Your task to perform on an android device: turn off priority inbox in the gmail app Image 0: 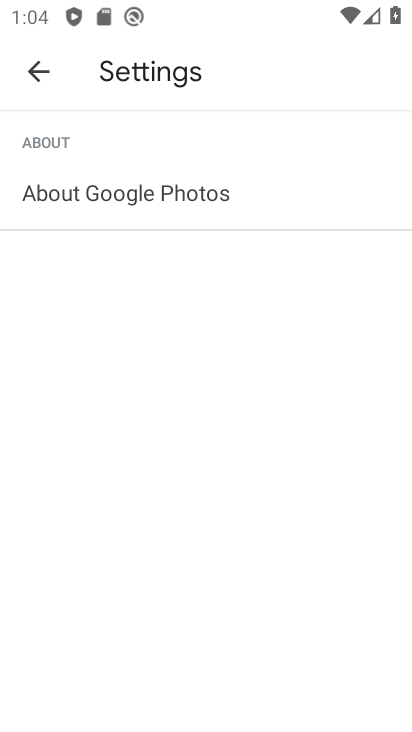
Step 0: press home button
Your task to perform on an android device: turn off priority inbox in the gmail app Image 1: 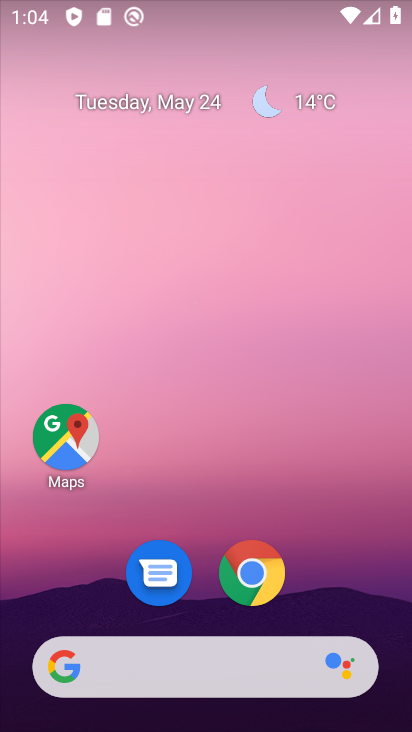
Step 1: drag from (346, 585) to (295, 24)
Your task to perform on an android device: turn off priority inbox in the gmail app Image 2: 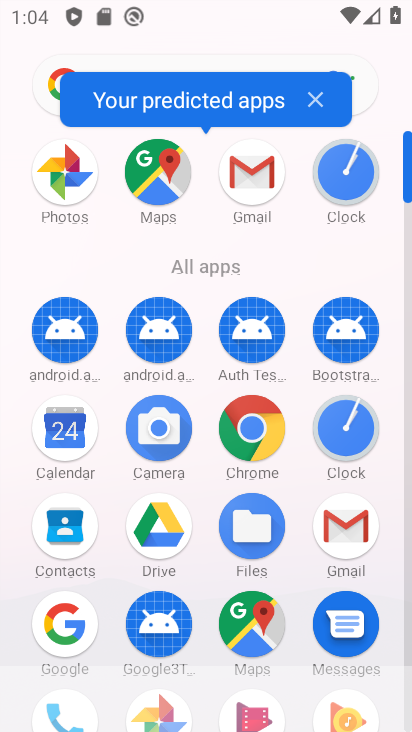
Step 2: drag from (191, 634) to (175, 160)
Your task to perform on an android device: turn off priority inbox in the gmail app Image 3: 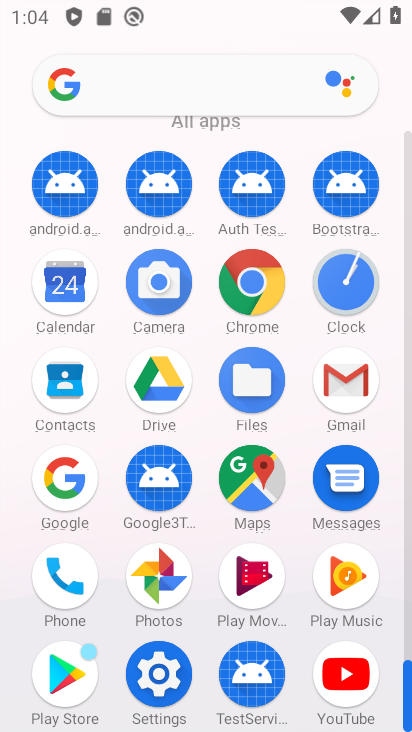
Step 3: click (170, 666)
Your task to perform on an android device: turn off priority inbox in the gmail app Image 4: 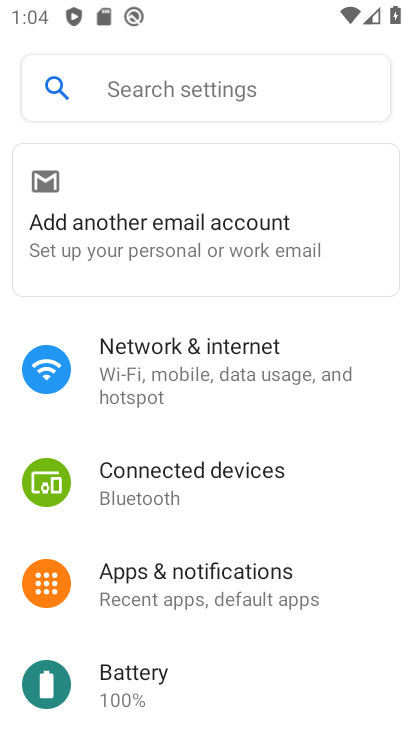
Step 4: press home button
Your task to perform on an android device: turn off priority inbox in the gmail app Image 5: 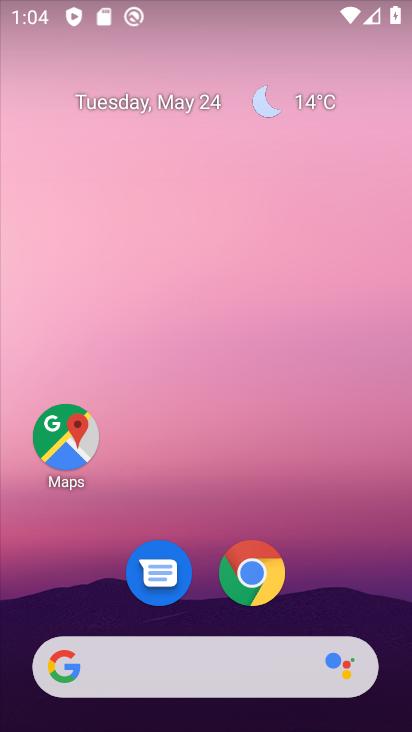
Step 5: drag from (329, 601) to (316, 14)
Your task to perform on an android device: turn off priority inbox in the gmail app Image 6: 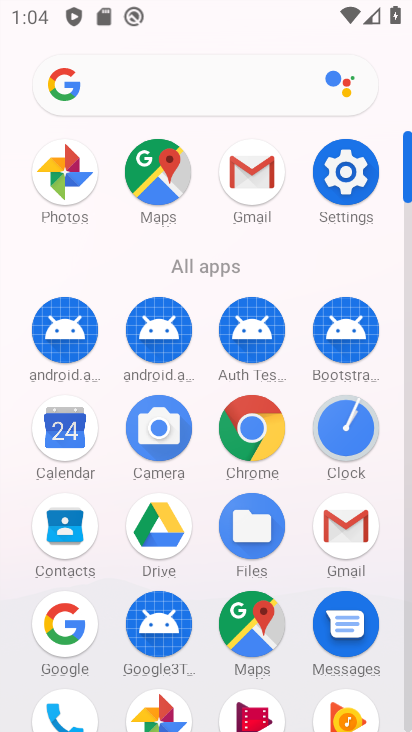
Step 6: click (353, 536)
Your task to perform on an android device: turn off priority inbox in the gmail app Image 7: 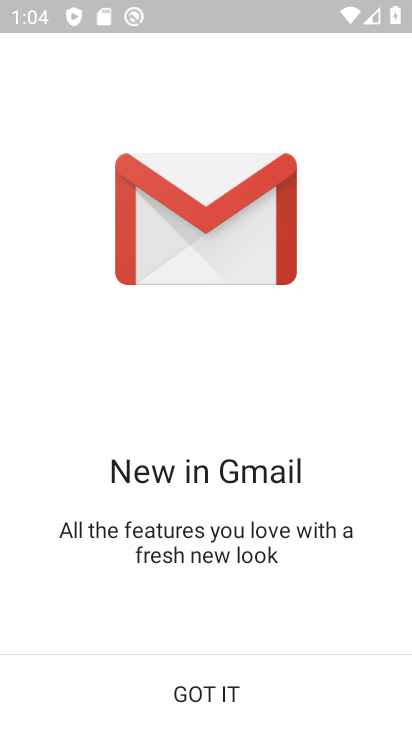
Step 7: click (198, 689)
Your task to perform on an android device: turn off priority inbox in the gmail app Image 8: 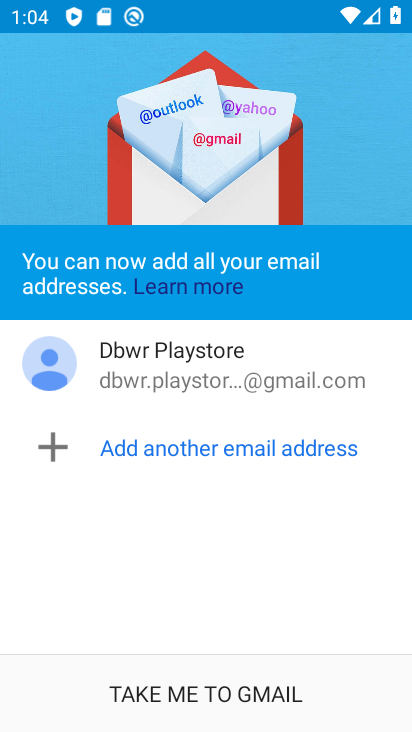
Step 8: click (187, 698)
Your task to perform on an android device: turn off priority inbox in the gmail app Image 9: 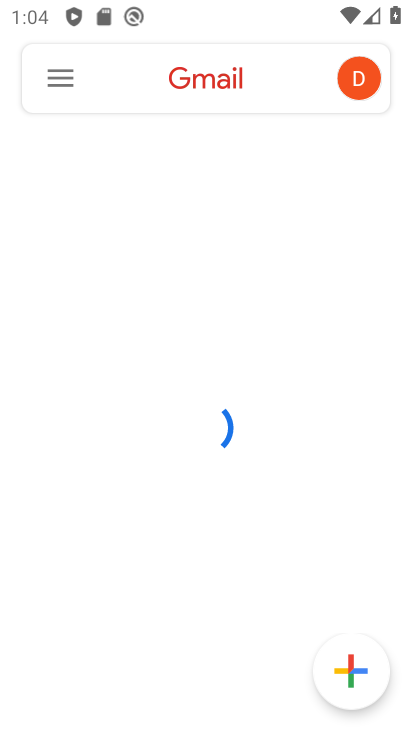
Step 9: click (61, 68)
Your task to perform on an android device: turn off priority inbox in the gmail app Image 10: 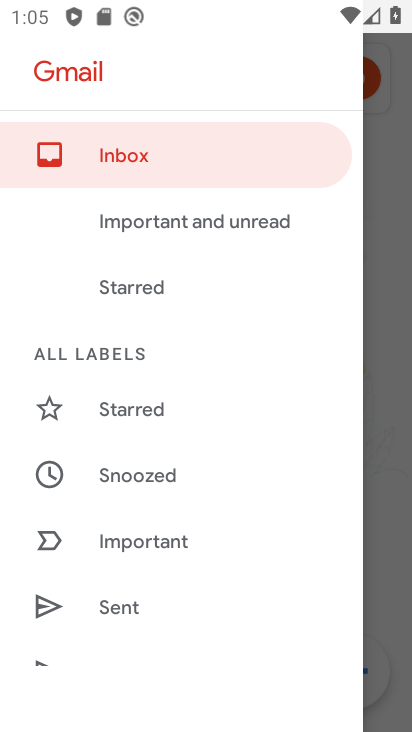
Step 10: drag from (157, 438) to (262, 22)
Your task to perform on an android device: turn off priority inbox in the gmail app Image 11: 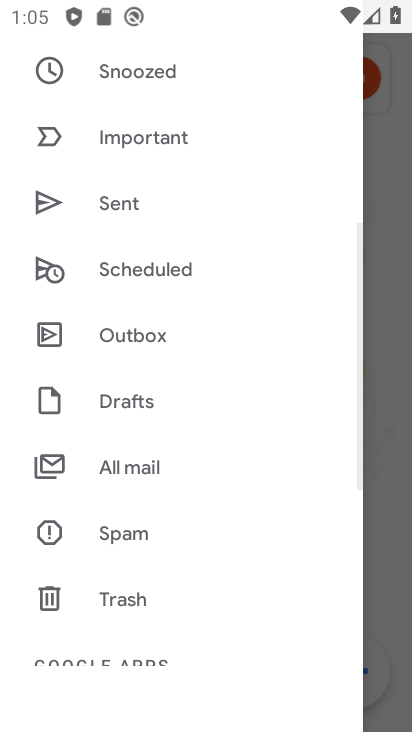
Step 11: drag from (207, 628) to (245, 123)
Your task to perform on an android device: turn off priority inbox in the gmail app Image 12: 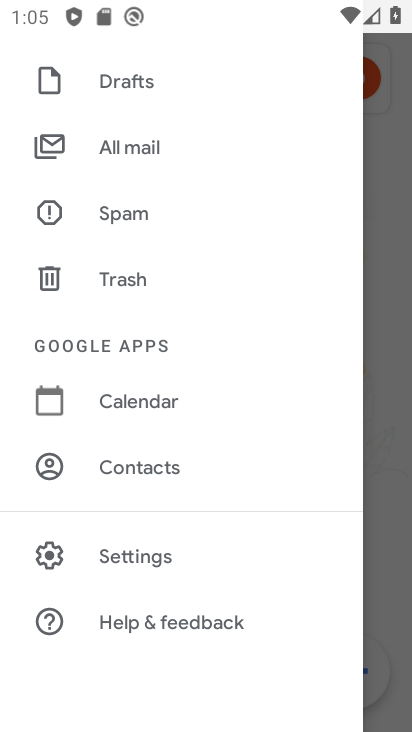
Step 12: click (154, 556)
Your task to perform on an android device: turn off priority inbox in the gmail app Image 13: 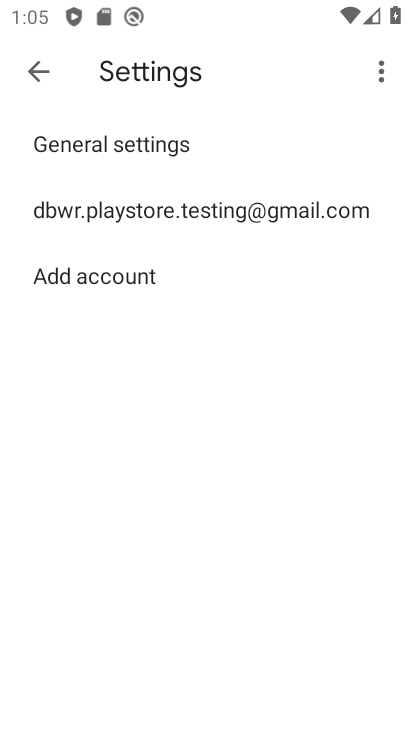
Step 13: click (112, 210)
Your task to perform on an android device: turn off priority inbox in the gmail app Image 14: 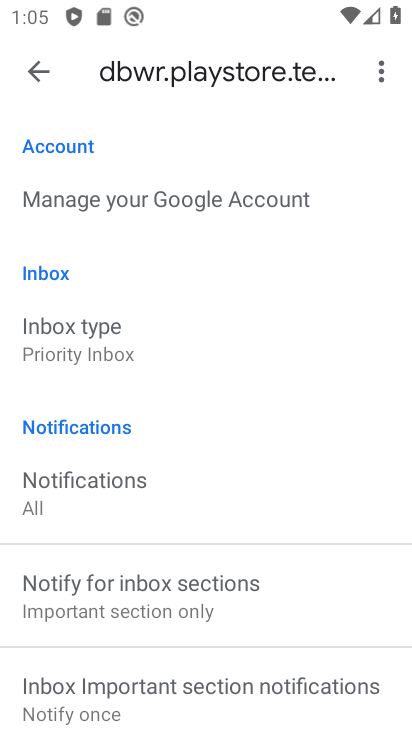
Step 14: click (126, 328)
Your task to perform on an android device: turn off priority inbox in the gmail app Image 15: 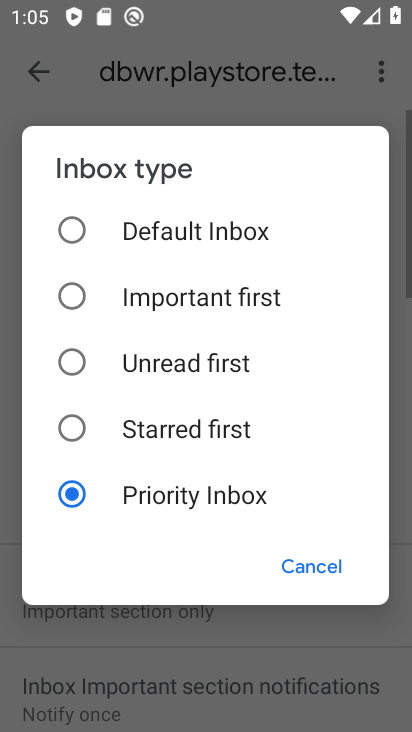
Step 15: click (132, 290)
Your task to perform on an android device: turn off priority inbox in the gmail app Image 16: 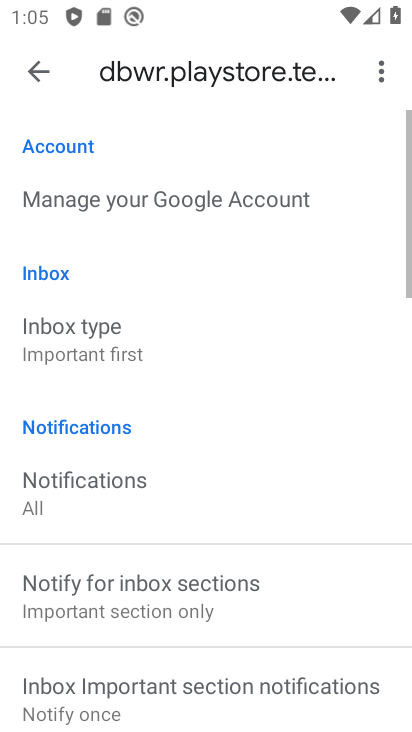
Step 16: task complete